Your task to perform on an android device: find which apps use the phone's location Image 0: 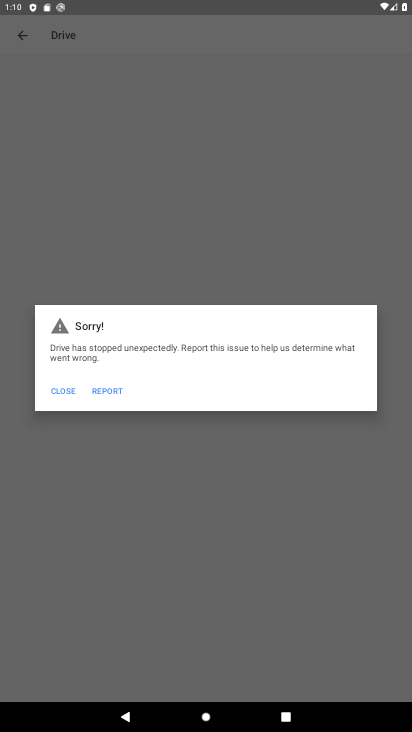
Step 0: press home button
Your task to perform on an android device: find which apps use the phone's location Image 1: 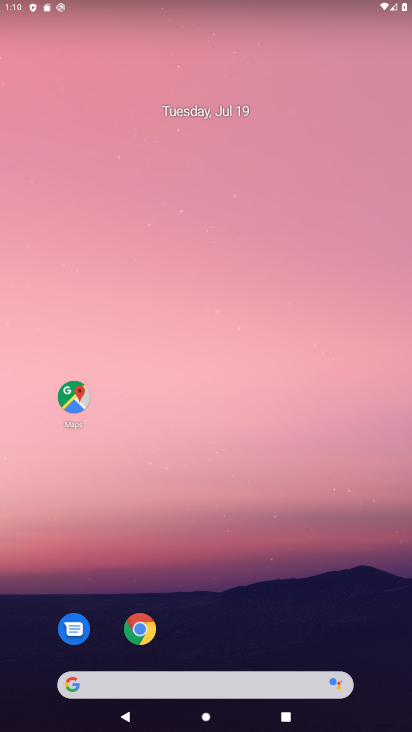
Step 1: drag from (295, 601) to (236, 0)
Your task to perform on an android device: find which apps use the phone's location Image 2: 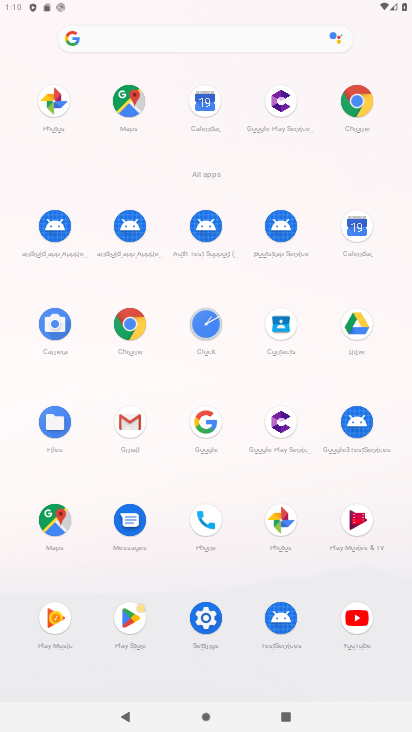
Step 2: click (204, 622)
Your task to perform on an android device: find which apps use the phone's location Image 3: 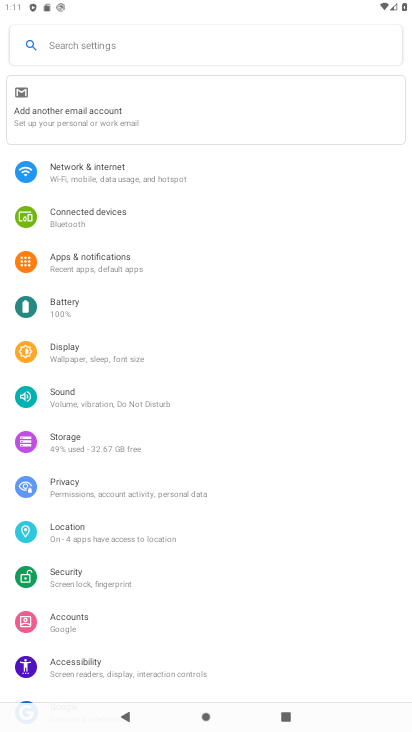
Step 3: click (78, 524)
Your task to perform on an android device: find which apps use the phone's location Image 4: 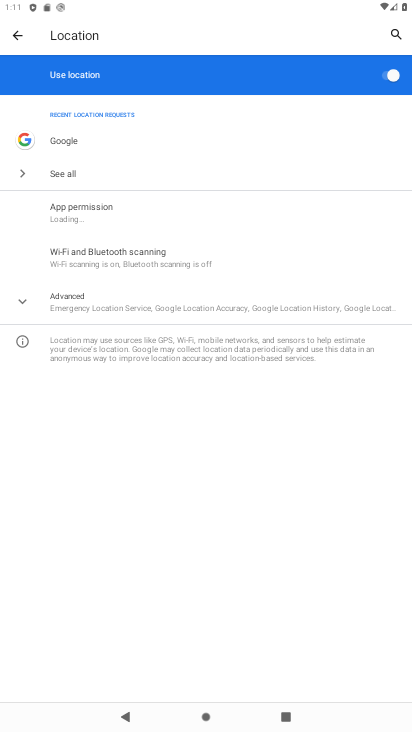
Step 4: click (97, 210)
Your task to perform on an android device: find which apps use the phone's location Image 5: 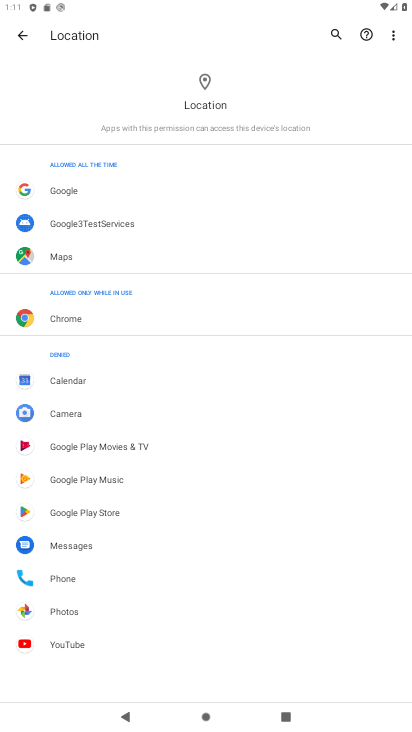
Step 5: task complete